Your task to perform on an android device: Go to Maps Image 0: 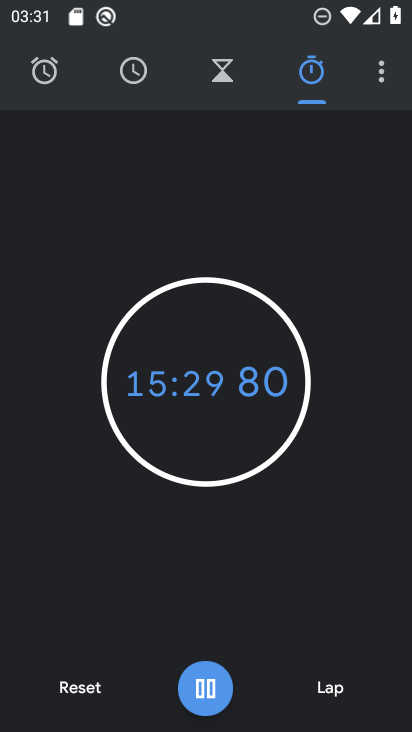
Step 0: press home button
Your task to perform on an android device: Go to Maps Image 1: 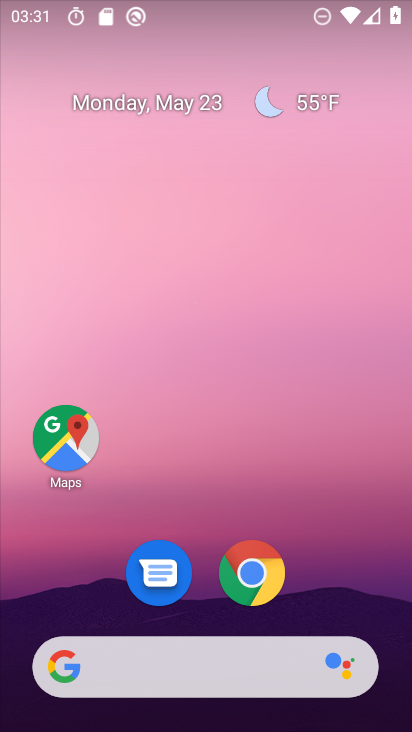
Step 1: click (76, 447)
Your task to perform on an android device: Go to Maps Image 2: 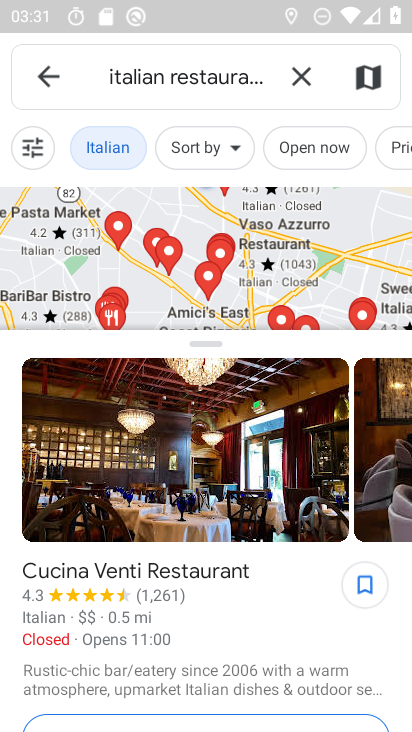
Step 2: task complete